Your task to perform on an android device: toggle notifications settings in the gmail app Image 0: 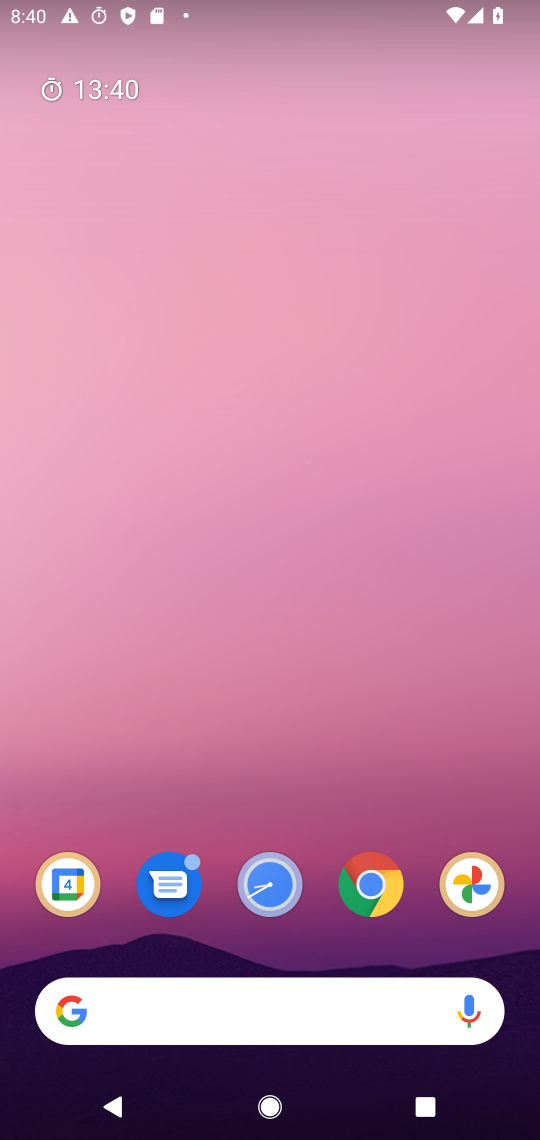
Step 0: press home button
Your task to perform on an android device: toggle notifications settings in the gmail app Image 1: 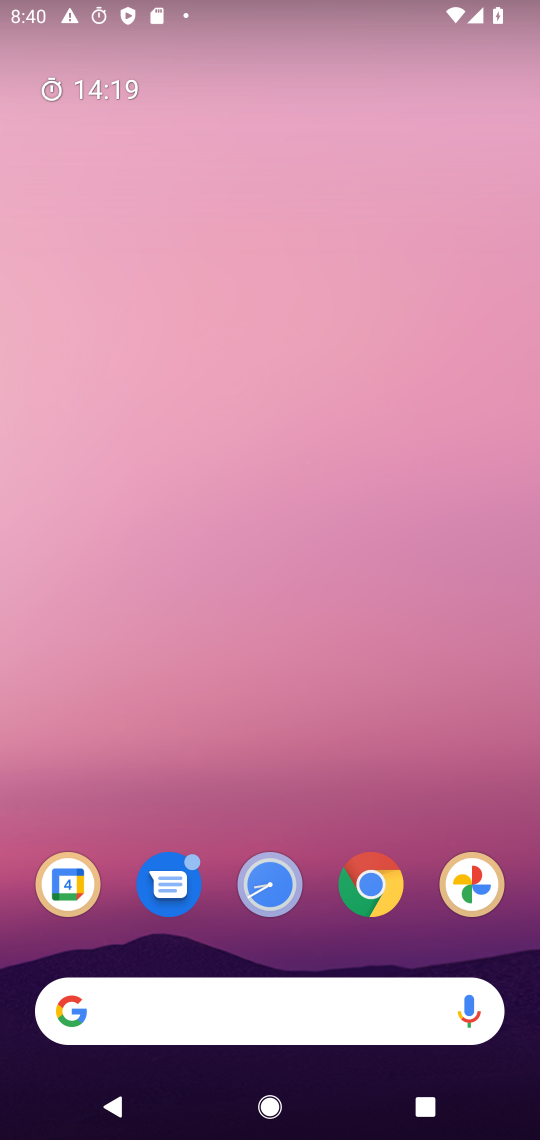
Step 1: drag from (397, 871) to (516, 146)
Your task to perform on an android device: toggle notifications settings in the gmail app Image 2: 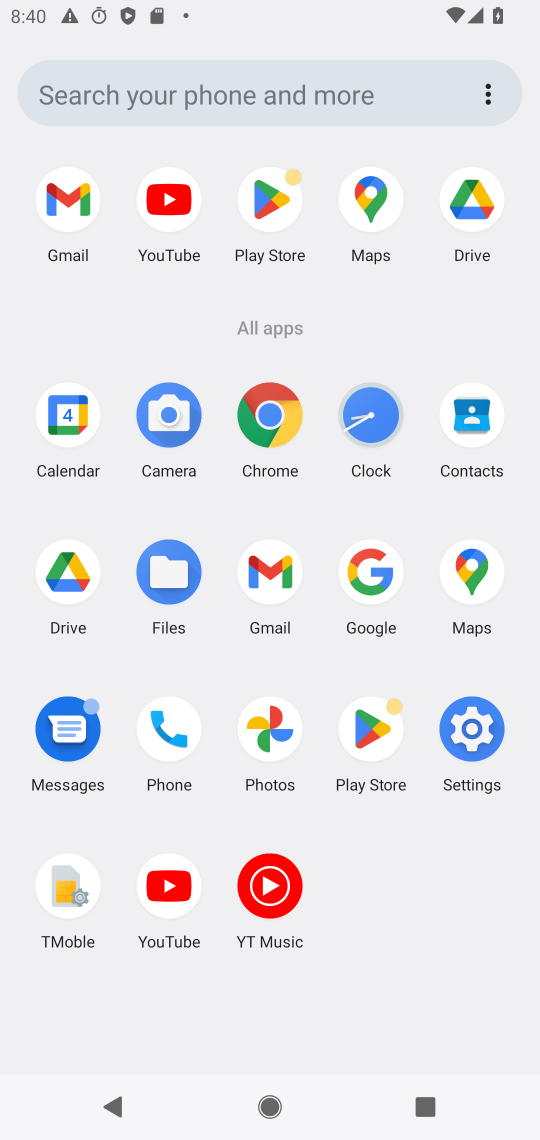
Step 2: click (82, 206)
Your task to perform on an android device: toggle notifications settings in the gmail app Image 3: 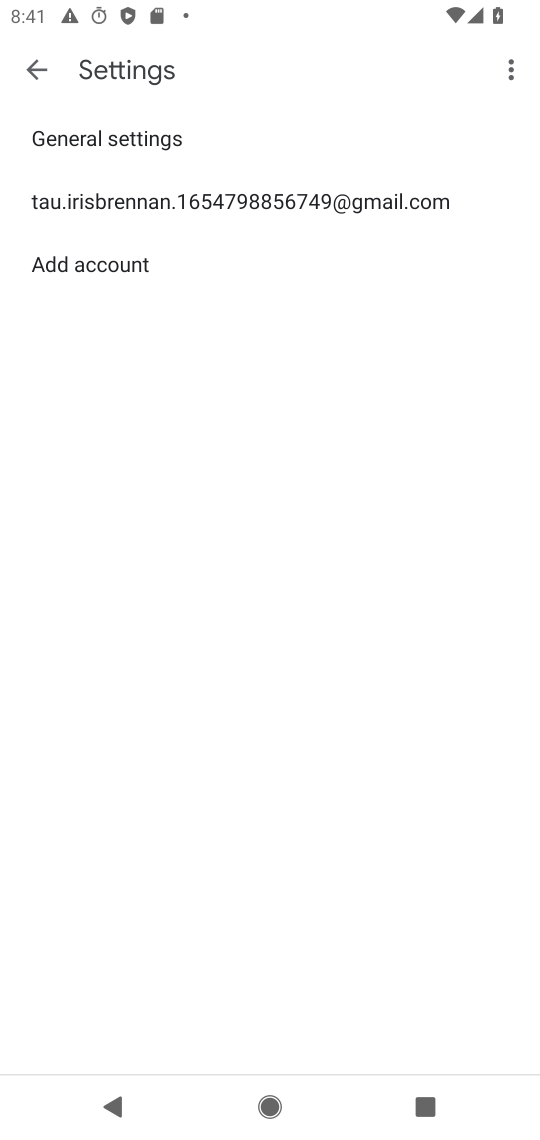
Step 3: click (194, 220)
Your task to perform on an android device: toggle notifications settings in the gmail app Image 4: 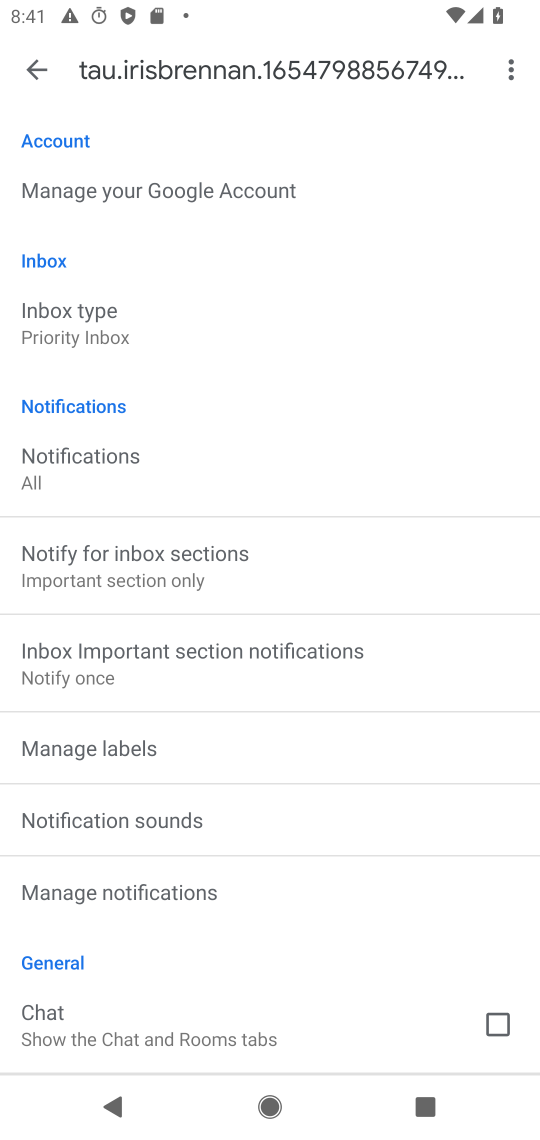
Step 4: click (148, 889)
Your task to perform on an android device: toggle notifications settings in the gmail app Image 5: 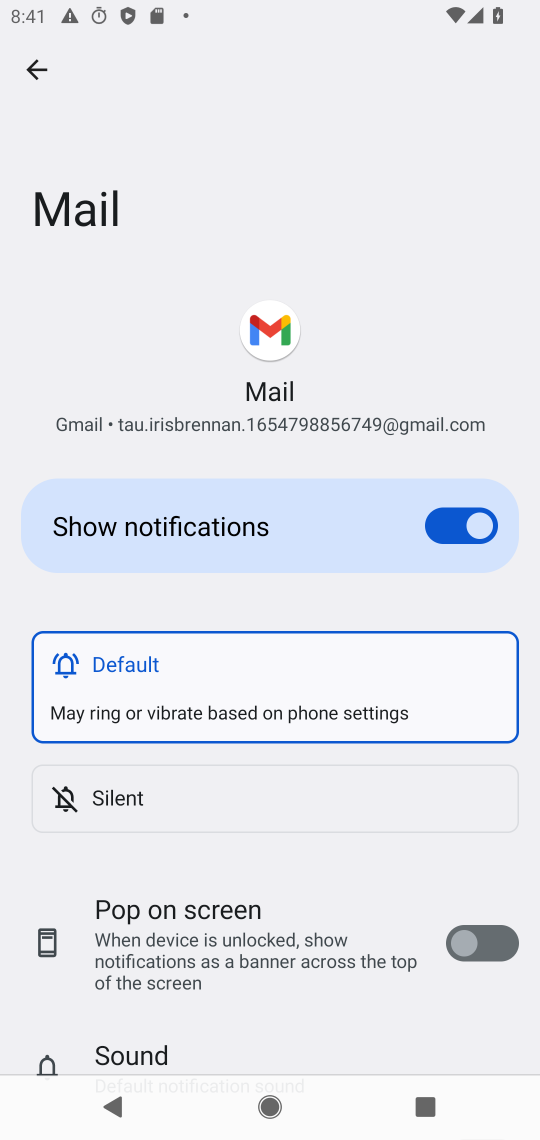
Step 5: click (478, 521)
Your task to perform on an android device: toggle notifications settings in the gmail app Image 6: 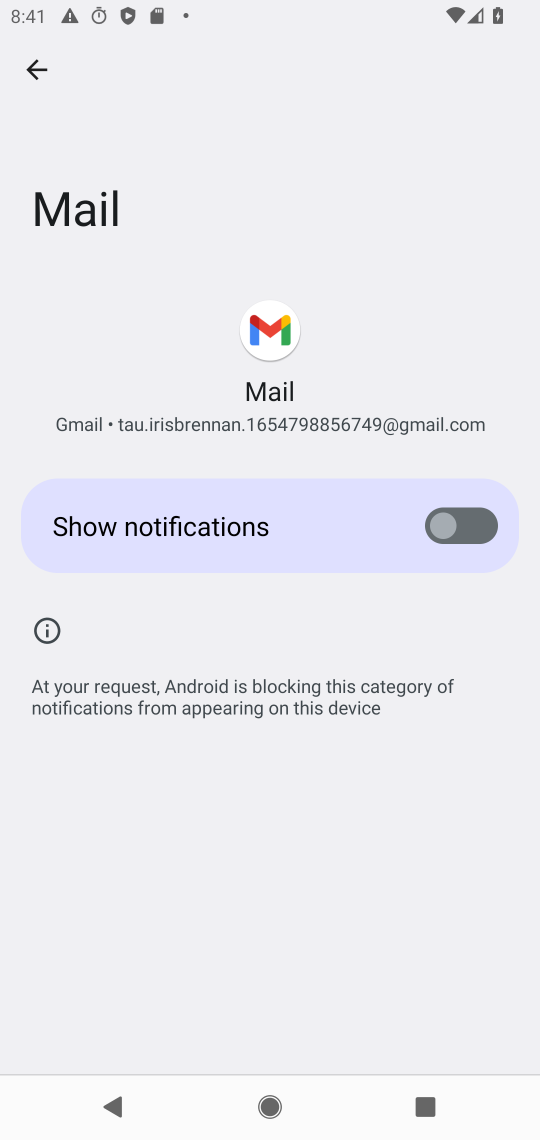
Step 6: task complete